Your task to perform on an android device: empty trash in google photos Image 0: 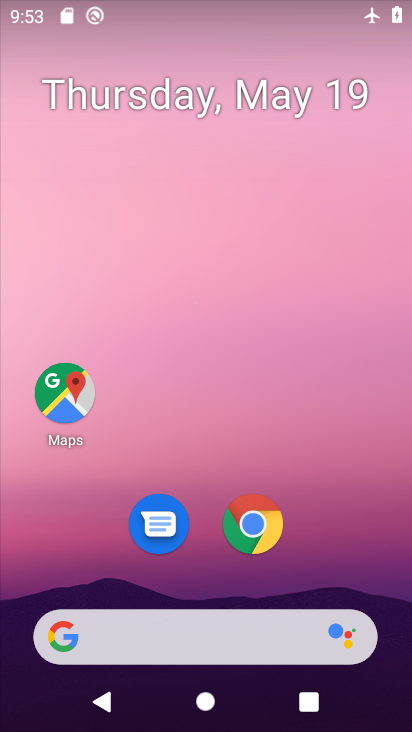
Step 0: drag from (228, 444) to (283, 68)
Your task to perform on an android device: empty trash in google photos Image 1: 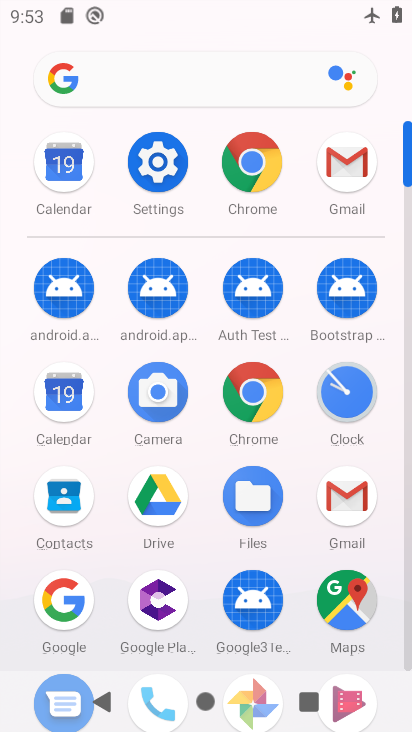
Step 1: drag from (210, 340) to (219, 117)
Your task to perform on an android device: empty trash in google photos Image 2: 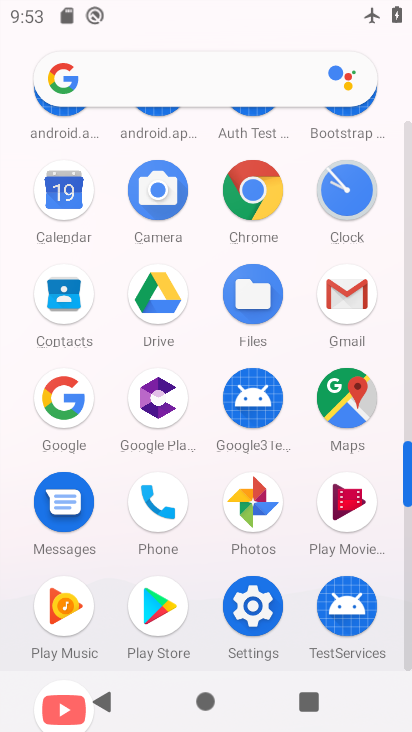
Step 2: click (245, 494)
Your task to perform on an android device: empty trash in google photos Image 3: 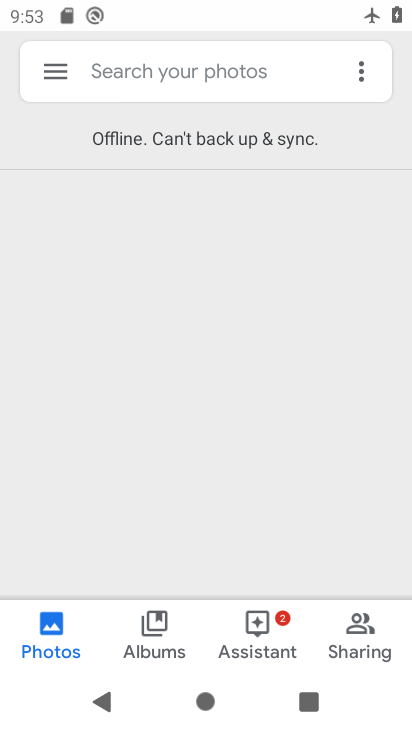
Step 3: click (55, 68)
Your task to perform on an android device: empty trash in google photos Image 4: 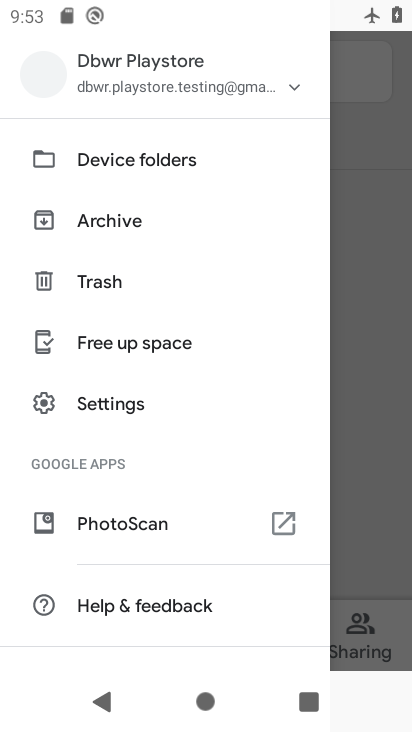
Step 4: click (99, 277)
Your task to perform on an android device: empty trash in google photos Image 5: 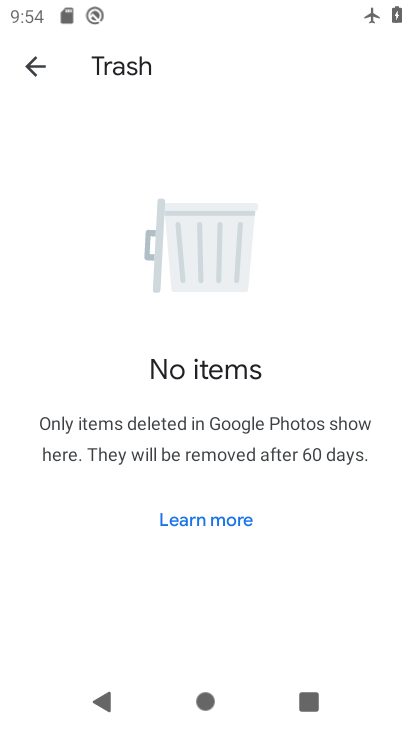
Step 5: task complete